Your task to perform on an android device: Do I have any events tomorrow? Image 0: 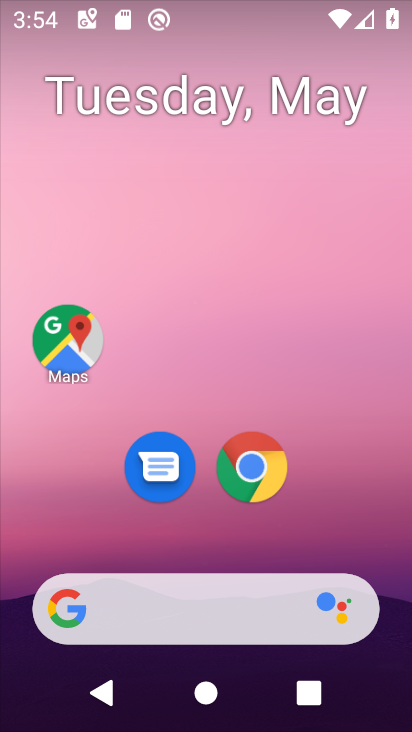
Step 0: drag from (283, 556) to (251, 69)
Your task to perform on an android device: Do I have any events tomorrow? Image 1: 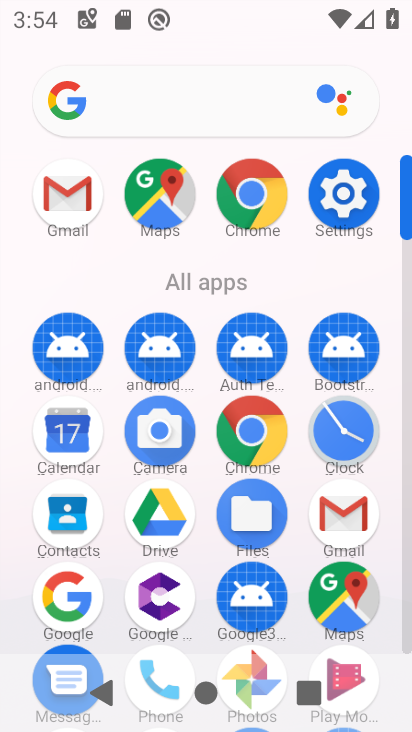
Step 1: click (53, 442)
Your task to perform on an android device: Do I have any events tomorrow? Image 2: 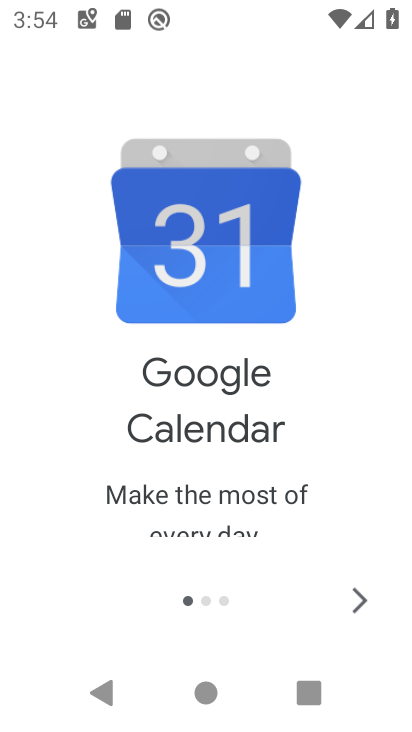
Step 2: click (346, 588)
Your task to perform on an android device: Do I have any events tomorrow? Image 3: 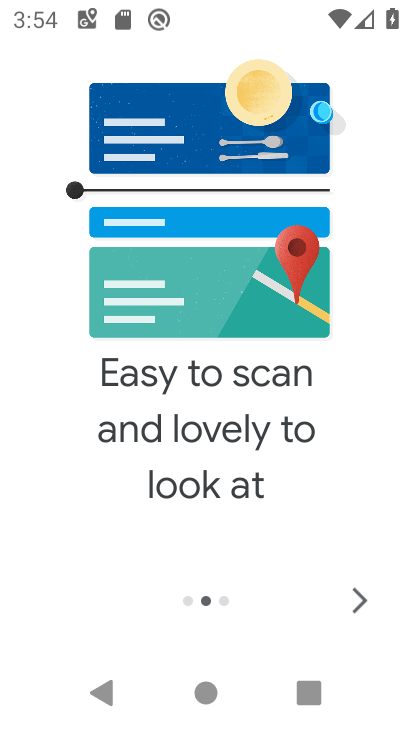
Step 3: click (346, 589)
Your task to perform on an android device: Do I have any events tomorrow? Image 4: 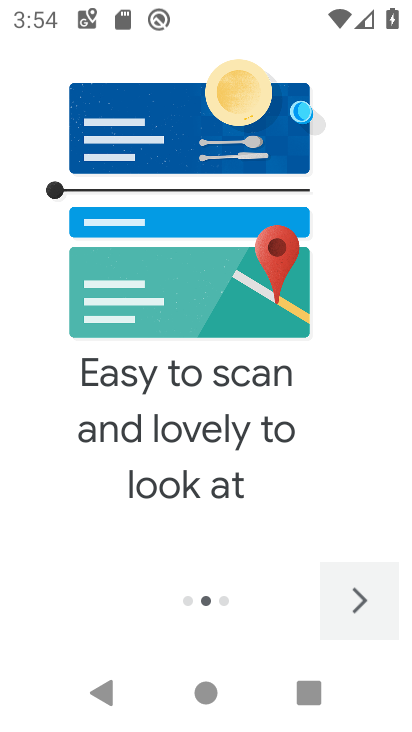
Step 4: click (346, 589)
Your task to perform on an android device: Do I have any events tomorrow? Image 5: 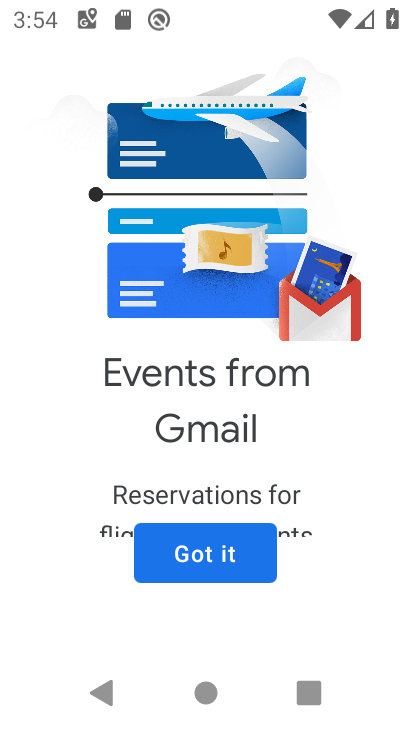
Step 5: click (254, 576)
Your task to perform on an android device: Do I have any events tomorrow? Image 6: 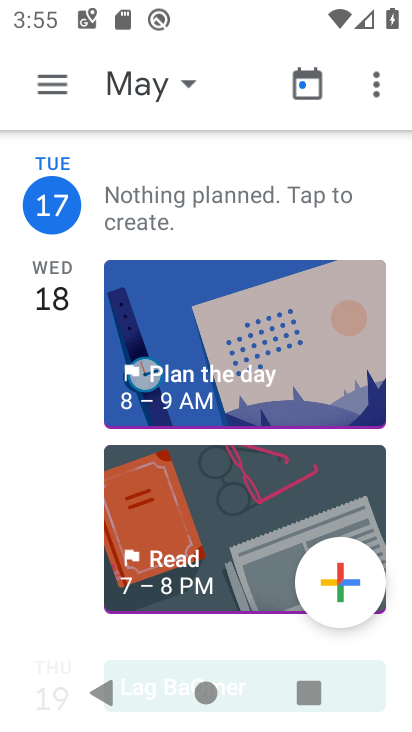
Step 6: task complete